Your task to perform on an android device: Open notification settings Image 0: 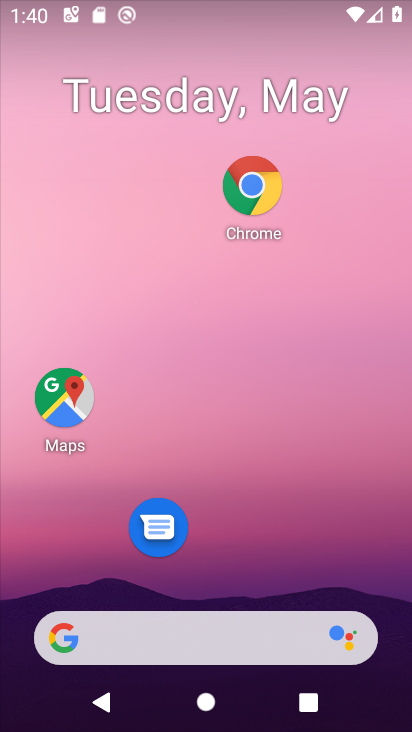
Step 0: drag from (293, 502) to (272, 0)
Your task to perform on an android device: Open notification settings Image 1: 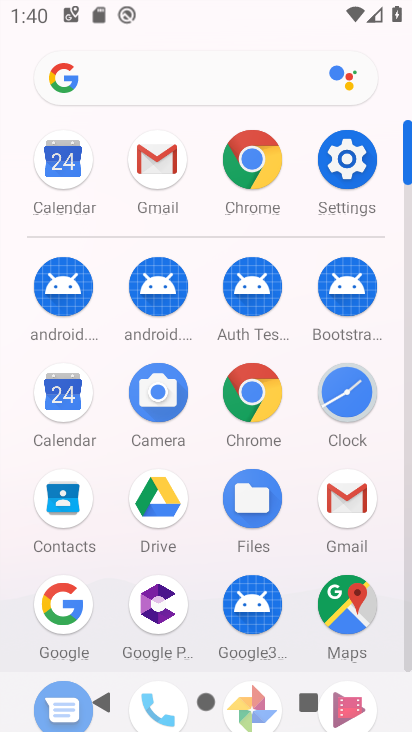
Step 1: click (350, 160)
Your task to perform on an android device: Open notification settings Image 2: 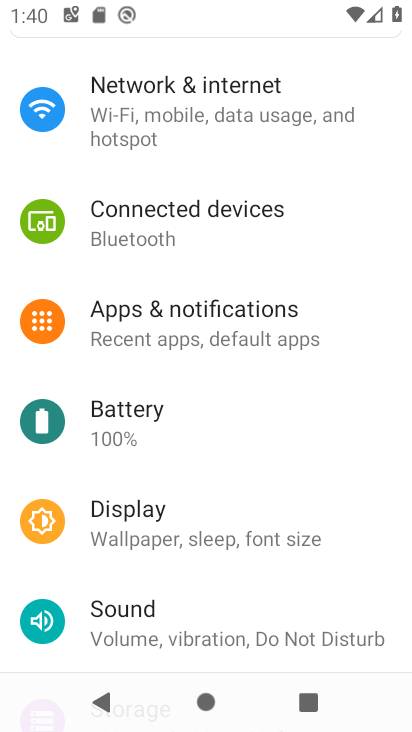
Step 2: click (194, 316)
Your task to perform on an android device: Open notification settings Image 3: 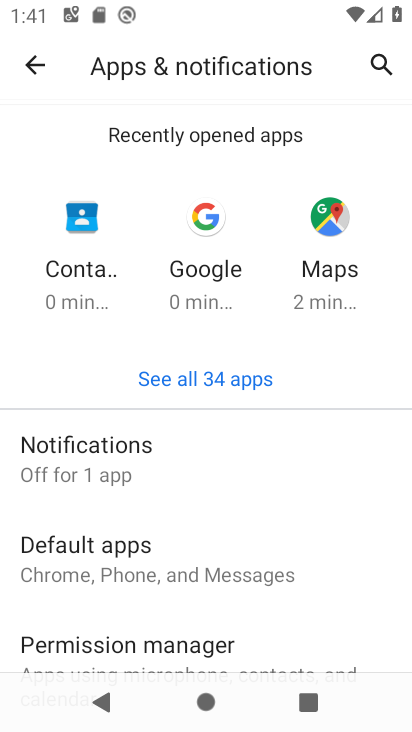
Step 3: task complete